Your task to perform on an android device: Check the weather Image 0: 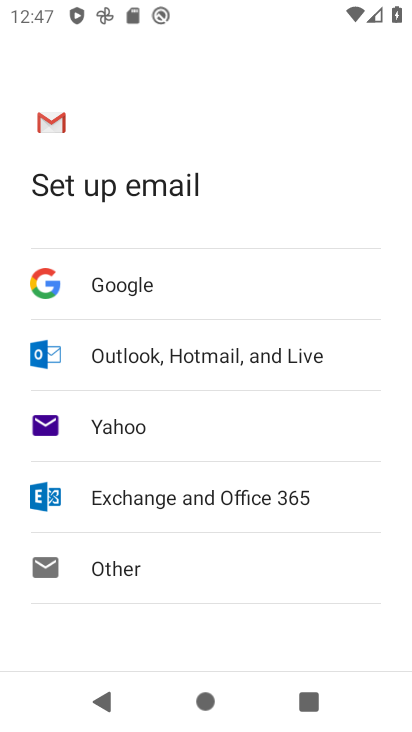
Step 0: press home button
Your task to perform on an android device: Check the weather Image 1: 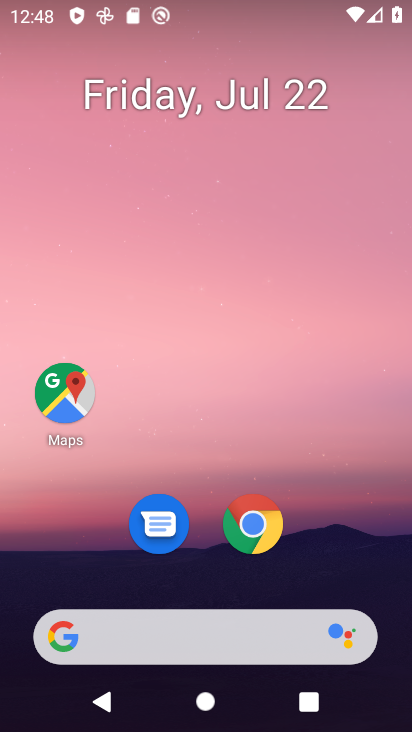
Step 1: click (167, 639)
Your task to perform on an android device: Check the weather Image 2: 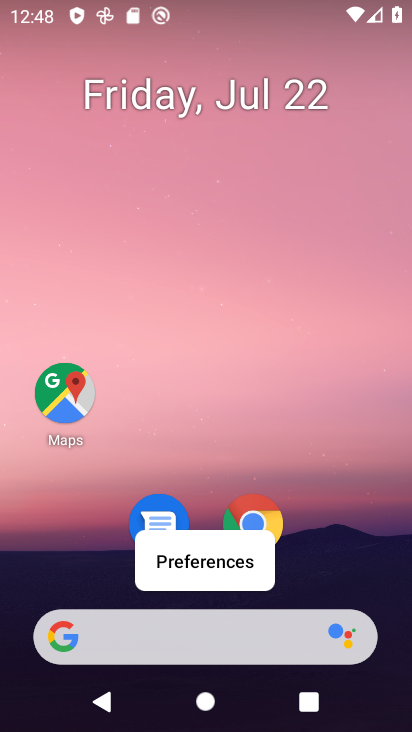
Step 2: click (142, 630)
Your task to perform on an android device: Check the weather Image 3: 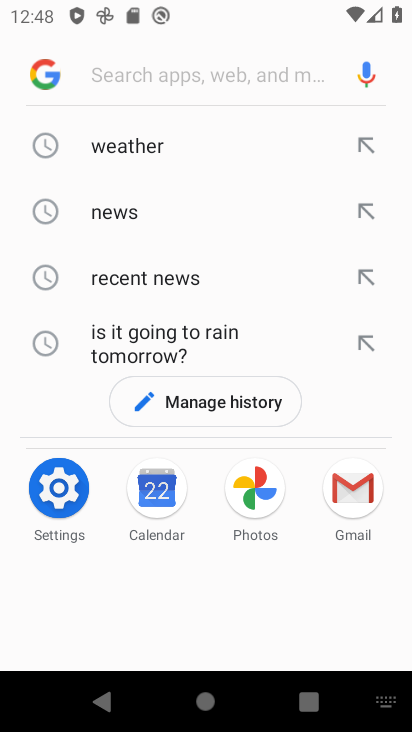
Step 3: click (149, 151)
Your task to perform on an android device: Check the weather Image 4: 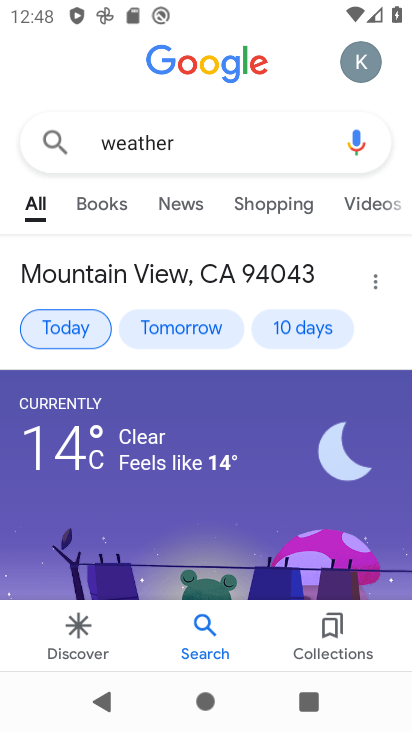
Step 4: task complete